Your task to perform on an android device: turn on showing notifications on the lock screen Image 0: 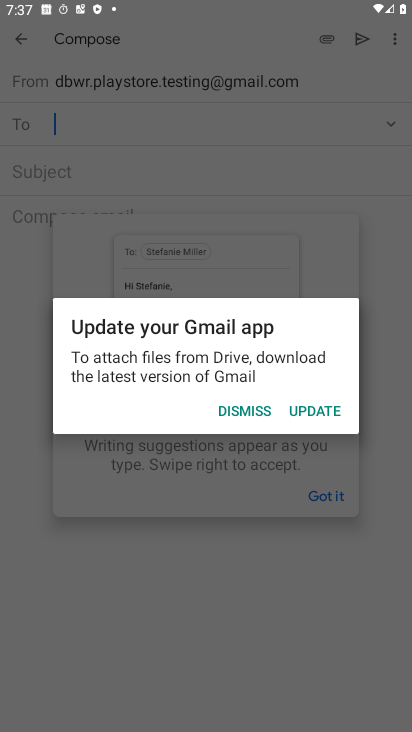
Step 0: press home button
Your task to perform on an android device: turn on showing notifications on the lock screen Image 1: 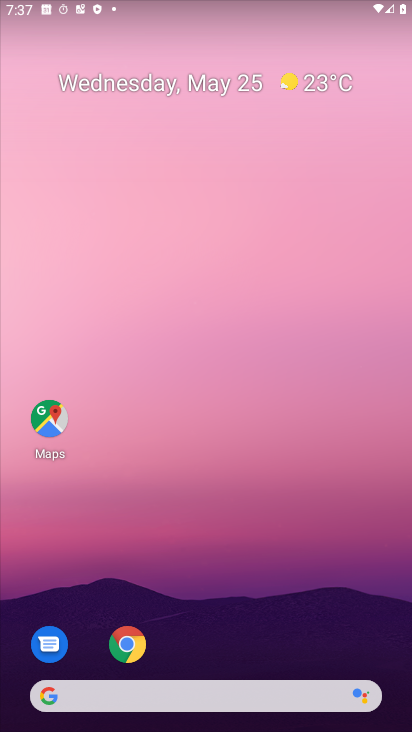
Step 1: drag from (274, 715) to (268, 322)
Your task to perform on an android device: turn on showing notifications on the lock screen Image 2: 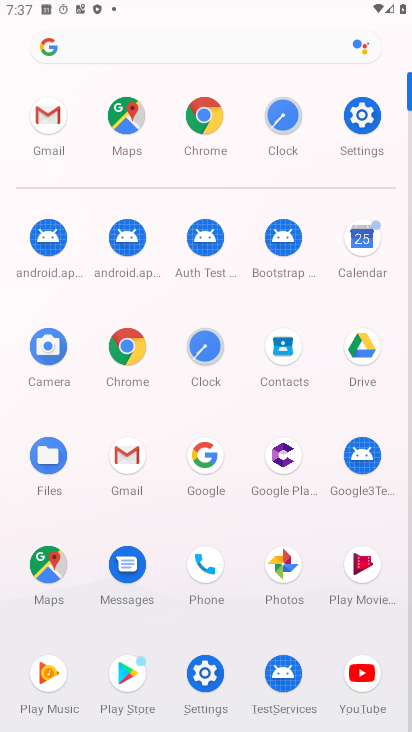
Step 2: click (345, 117)
Your task to perform on an android device: turn on showing notifications on the lock screen Image 3: 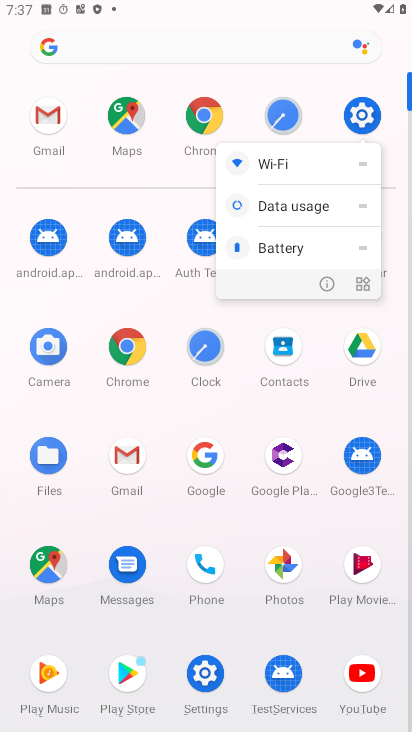
Step 3: click (346, 125)
Your task to perform on an android device: turn on showing notifications on the lock screen Image 4: 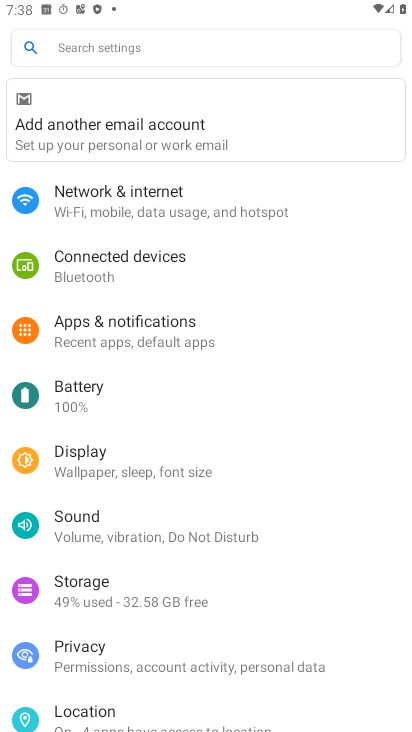
Step 4: click (157, 54)
Your task to perform on an android device: turn on showing notifications on the lock screen Image 5: 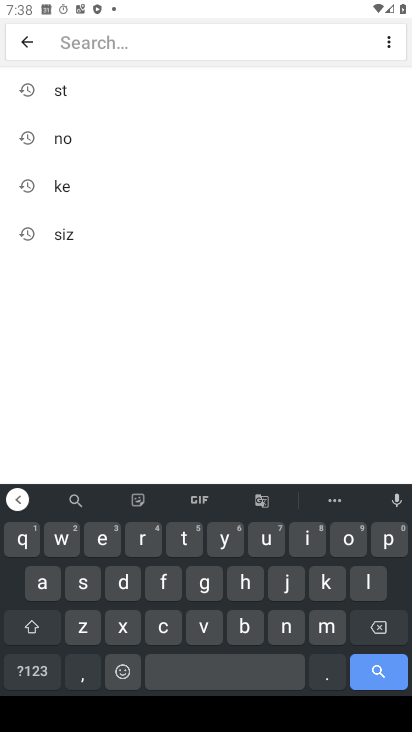
Step 5: click (88, 137)
Your task to perform on an android device: turn on showing notifications on the lock screen Image 6: 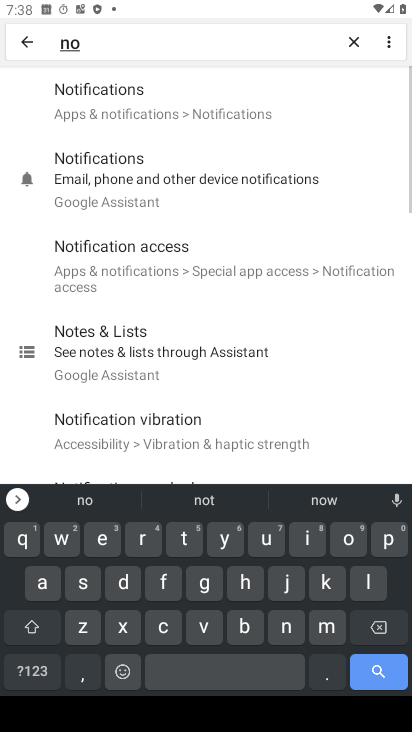
Step 6: click (145, 120)
Your task to perform on an android device: turn on showing notifications on the lock screen Image 7: 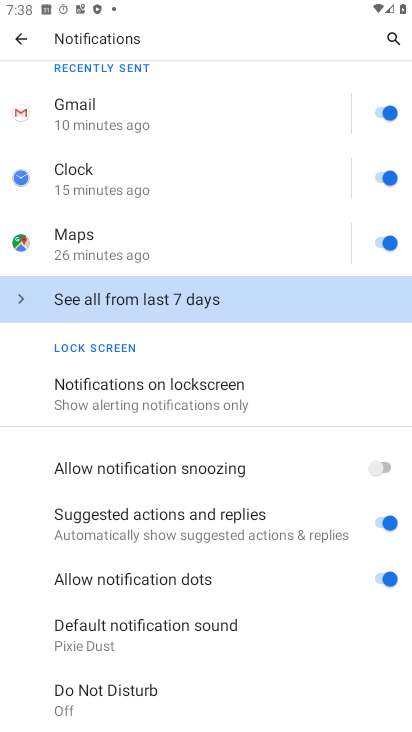
Step 7: click (117, 364)
Your task to perform on an android device: turn on showing notifications on the lock screen Image 8: 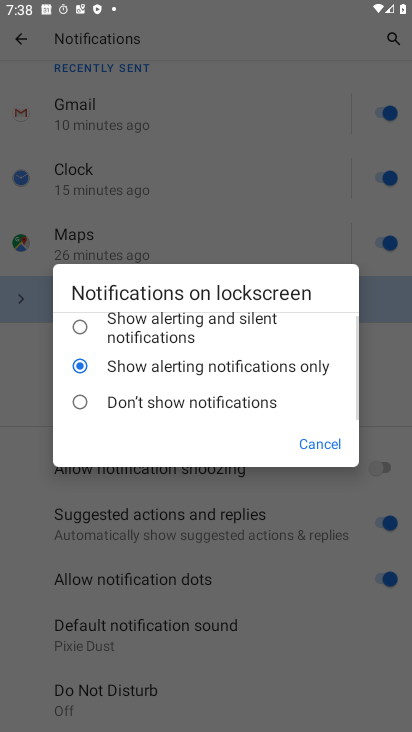
Step 8: click (137, 324)
Your task to perform on an android device: turn on showing notifications on the lock screen Image 9: 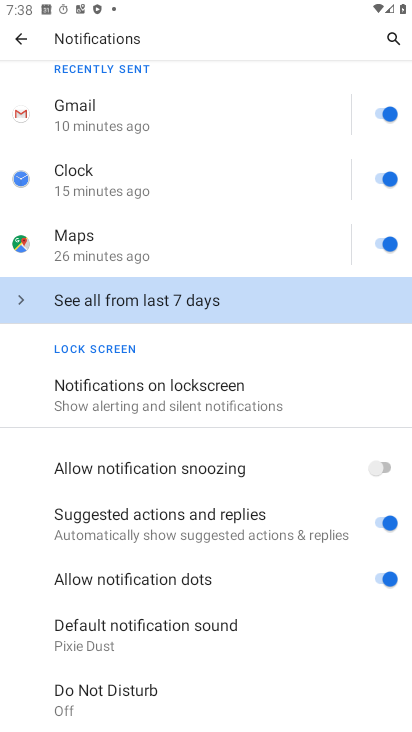
Step 9: task complete